Your task to perform on an android device: What's the weather today? Image 0: 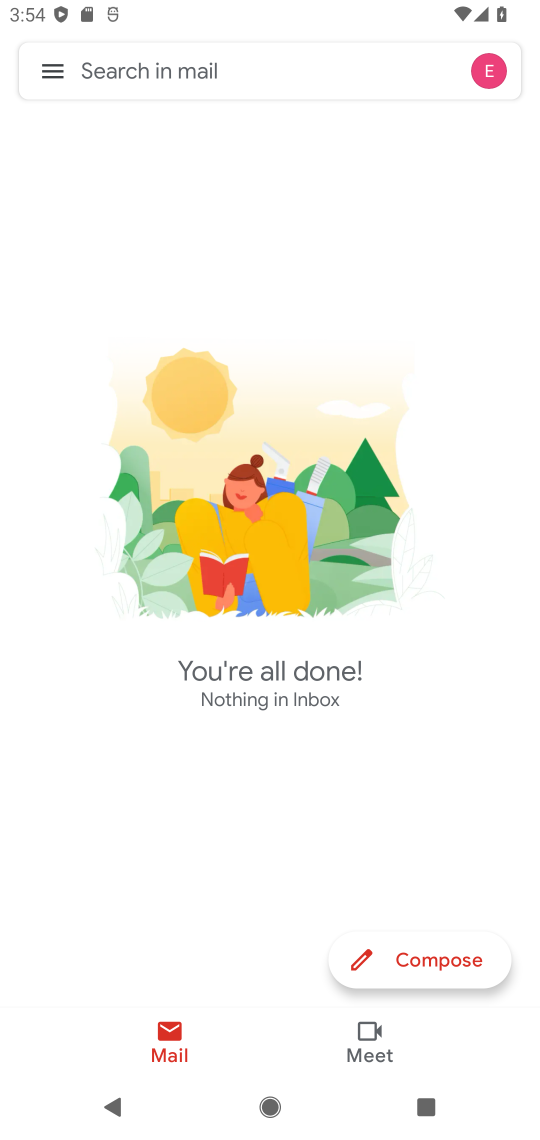
Step 0: press home button
Your task to perform on an android device: What's the weather today? Image 1: 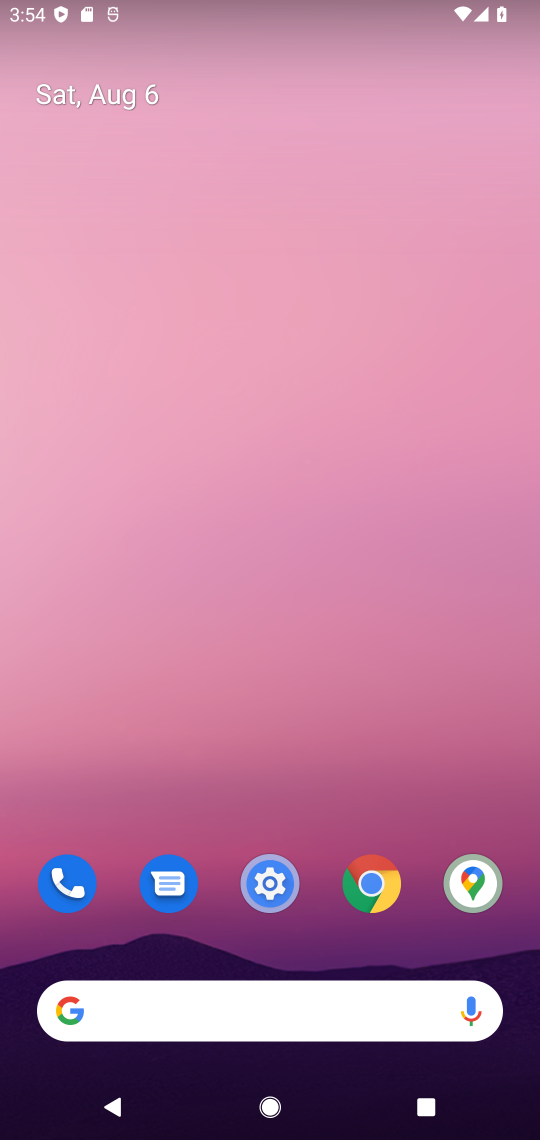
Step 1: drag from (284, 915) to (351, 2)
Your task to perform on an android device: What's the weather today? Image 2: 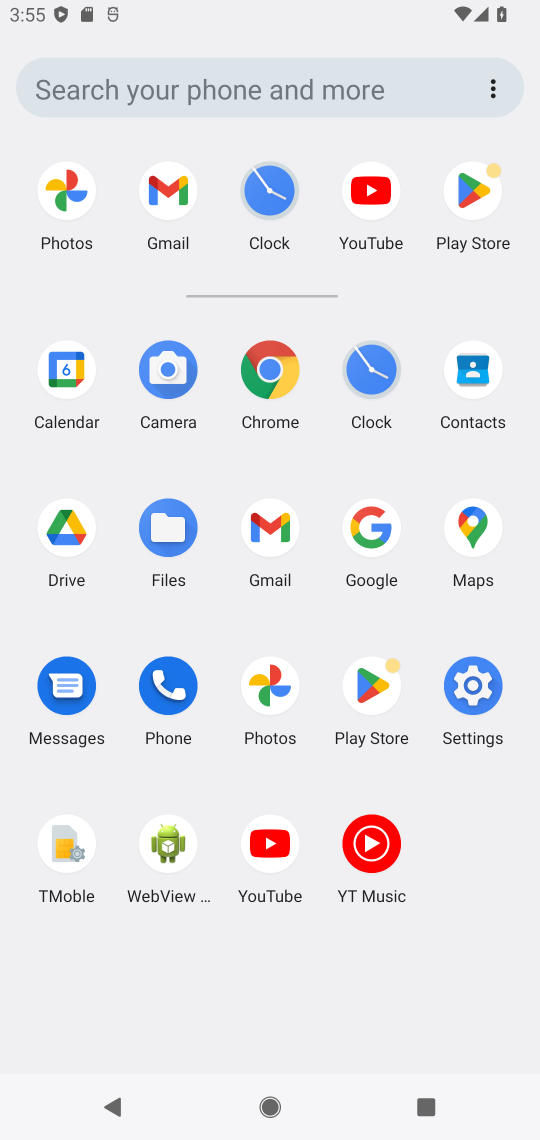
Step 2: click (391, 547)
Your task to perform on an android device: What's the weather today? Image 3: 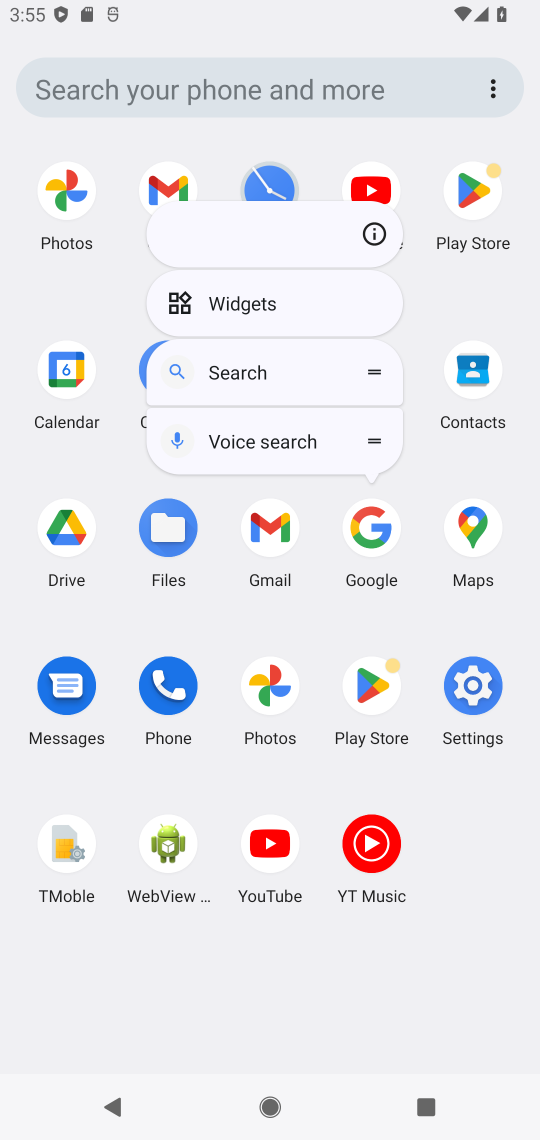
Step 3: click (372, 567)
Your task to perform on an android device: What's the weather today? Image 4: 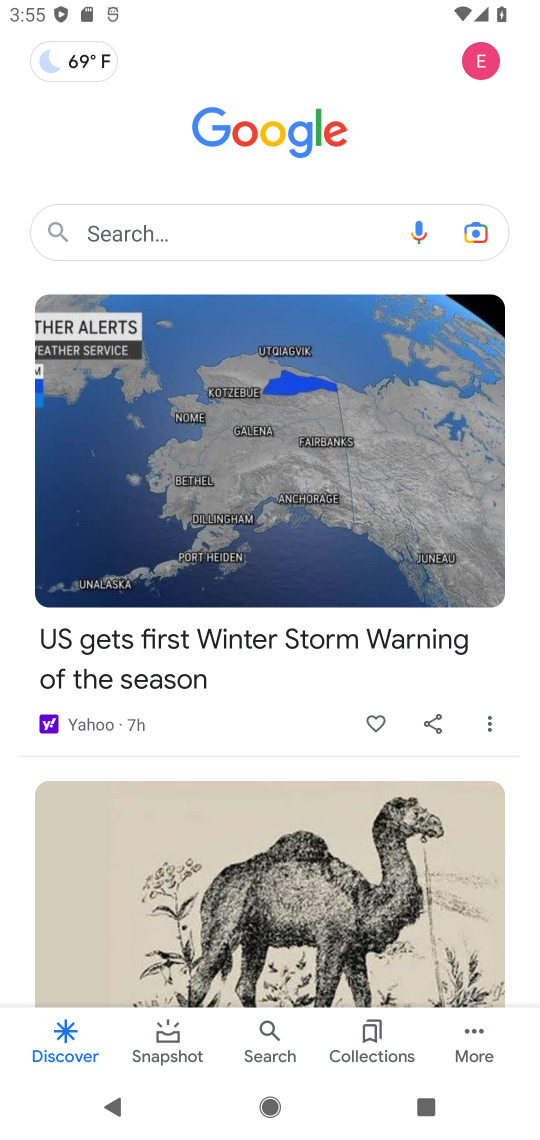
Step 4: click (269, 233)
Your task to perform on an android device: What's the weather today? Image 5: 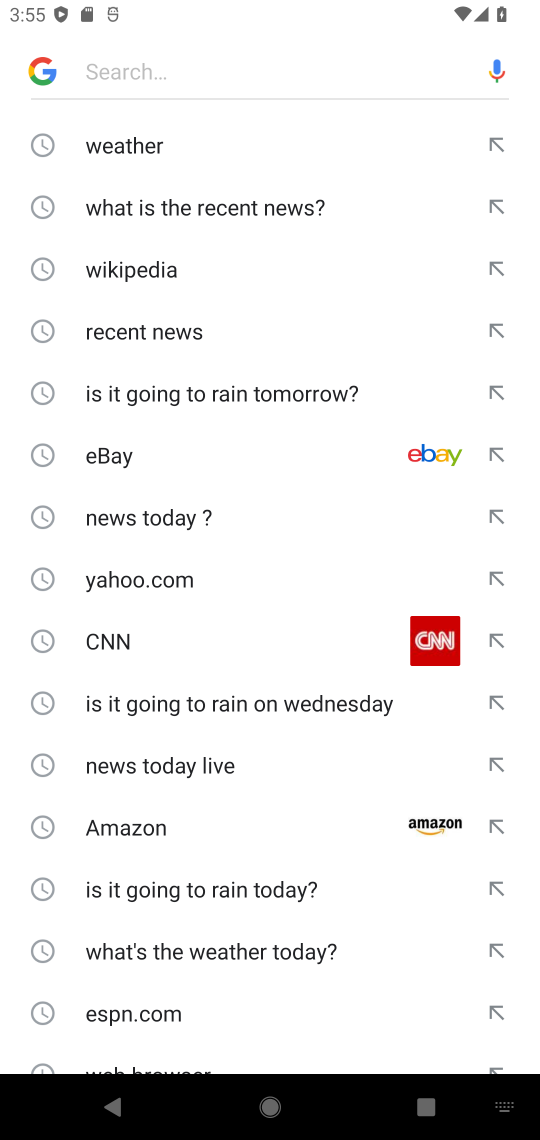
Step 5: click (171, 155)
Your task to perform on an android device: What's the weather today? Image 6: 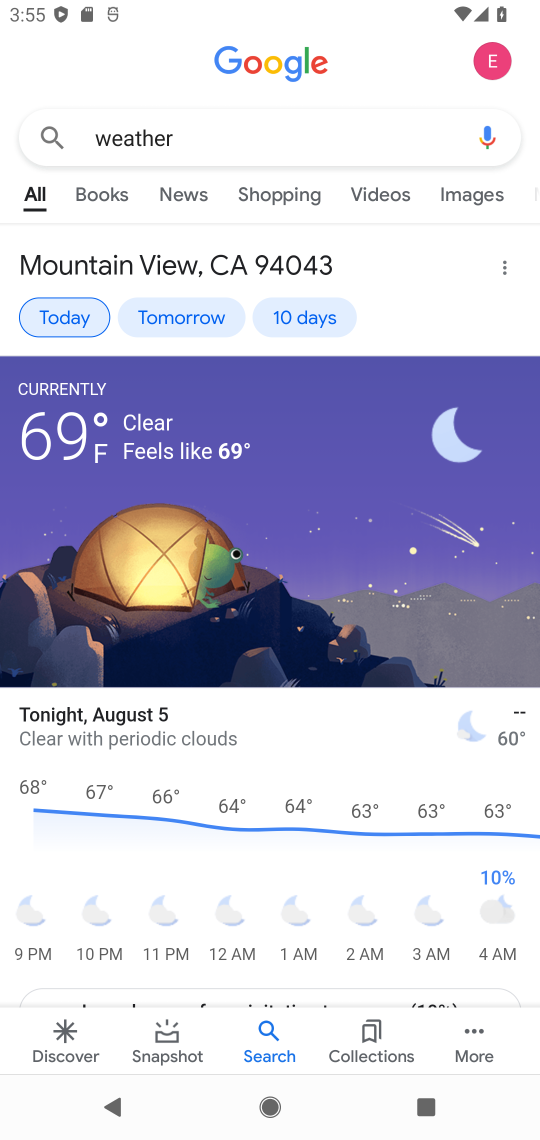
Step 6: task complete